Your task to perform on an android device: Go to Reddit.com Image 0: 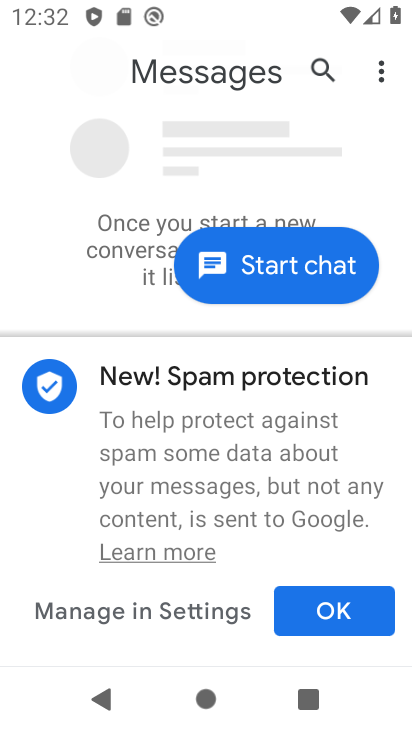
Step 0: press home button
Your task to perform on an android device: Go to Reddit.com Image 1: 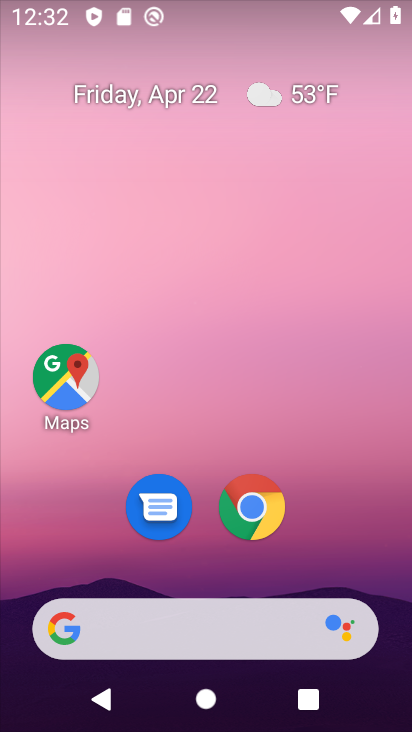
Step 1: click (244, 505)
Your task to perform on an android device: Go to Reddit.com Image 2: 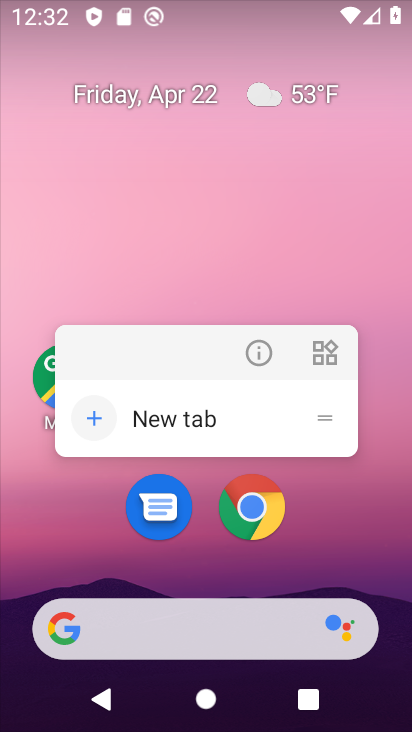
Step 2: click (259, 350)
Your task to perform on an android device: Go to Reddit.com Image 3: 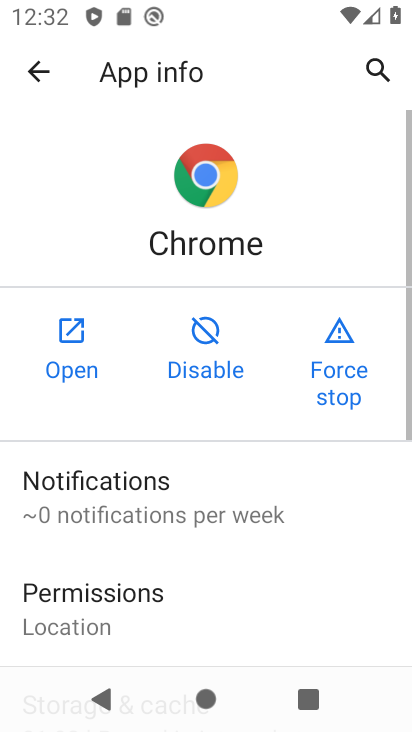
Step 3: click (72, 360)
Your task to perform on an android device: Go to Reddit.com Image 4: 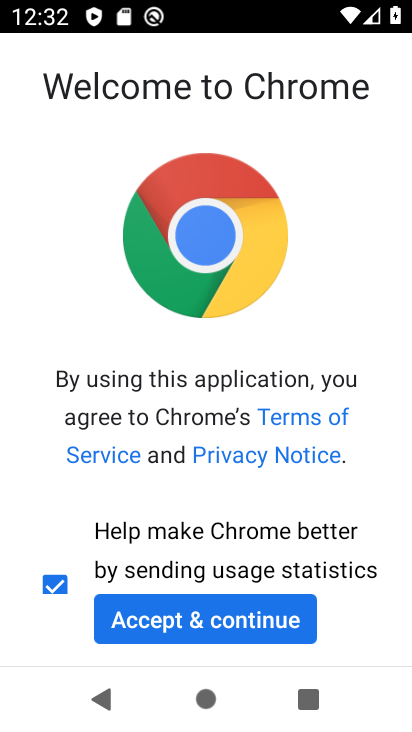
Step 4: click (184, 622)
Your task to perform on an android device: Go to Reddit.com Image 5: 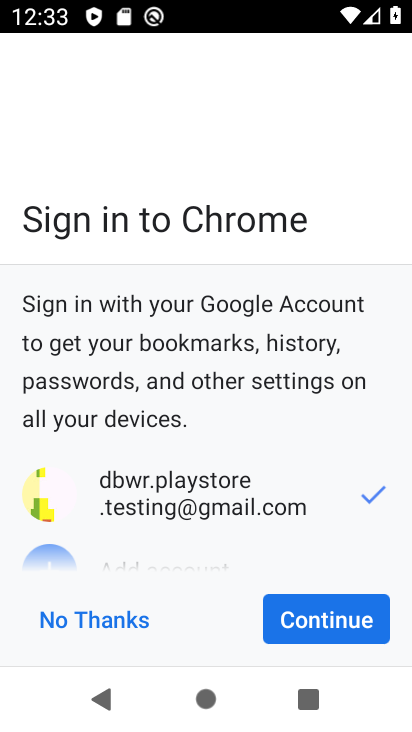
Step 5: click (343, 625)
Your task to perform on an android device: Go to Reddit.com Image 6: 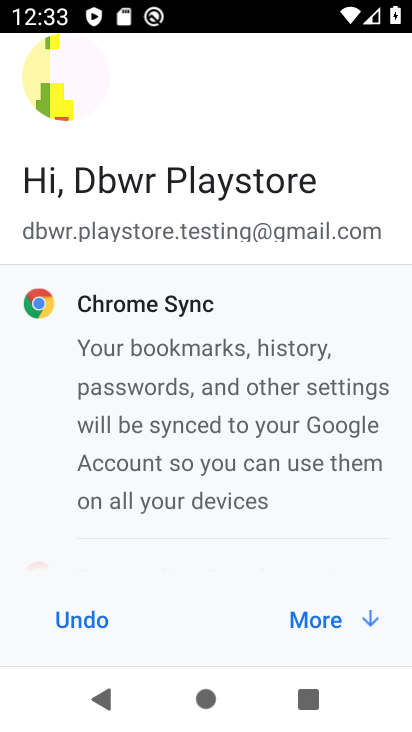
Step 6: click (343, 625)
Your task to perform on an android device: Go to Reddit.com Image 7: 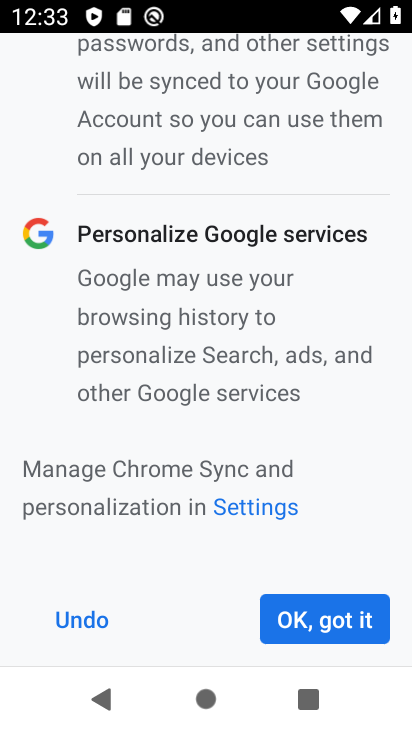
Step 7: click (343, 625)
Your task to perform on an android device: Go to Reddit.com Image 8: 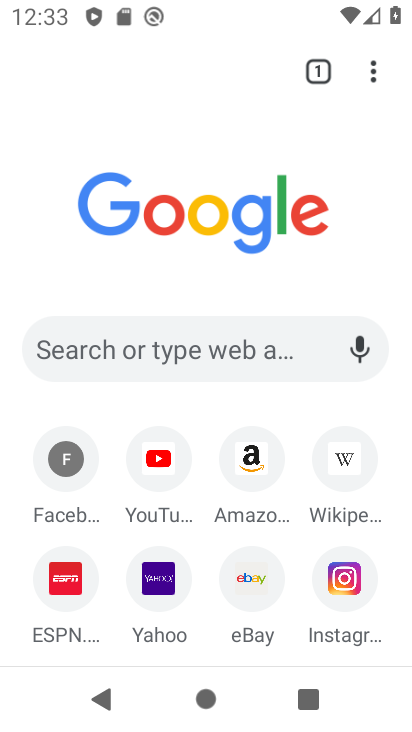
Step 8: click (180, 340)
Your task to perform on an android device: Go to Reddit.com Image 9: 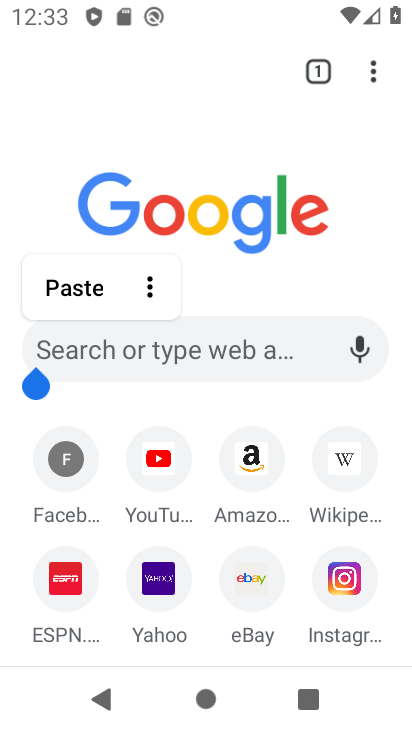
Step 9: click (184, 359)
Your task to perform on an android device: Go to Reddit.com Image 10: 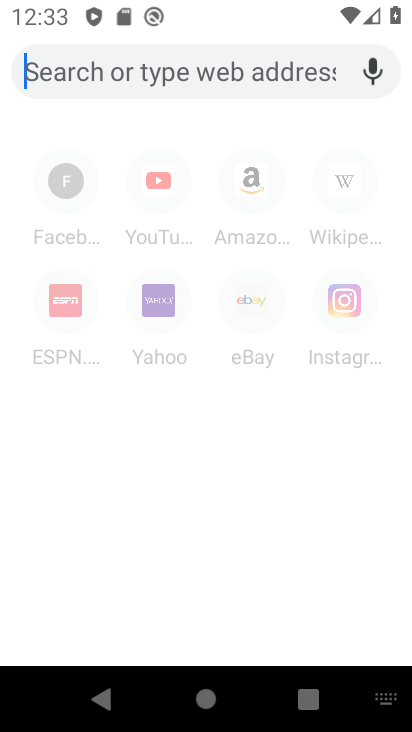
Step 10: type "Reddit.com"
Your task to perform on an android device: Go to Reddit.com Image 11: 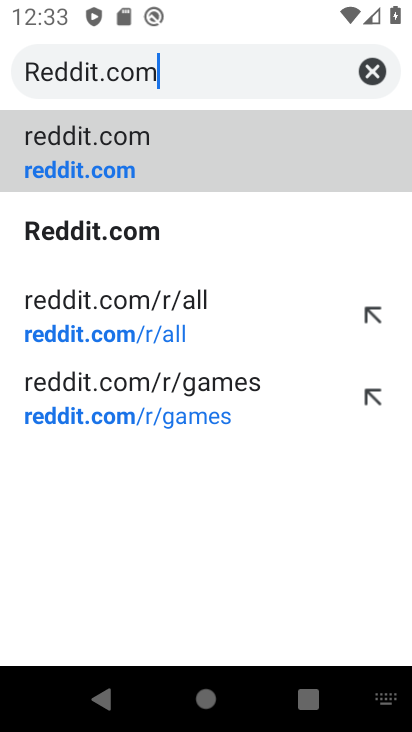
Step 11: click (170, 170)
Your task to perform on an android device: Go to Reddit.com Image 12: 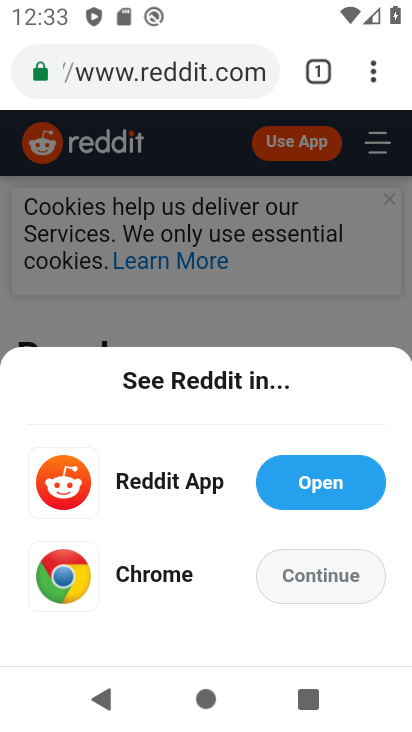
Step 12: click (189, 304)
Your task to perform on an android device: Go to Reddit.com Image 13: 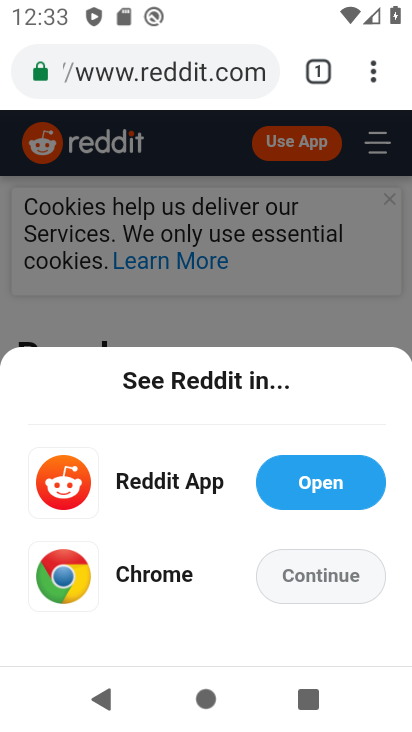
Step 13: task complete